Your task to perform on an android device: Open calendar and show me the fourth week of next month Image 0: 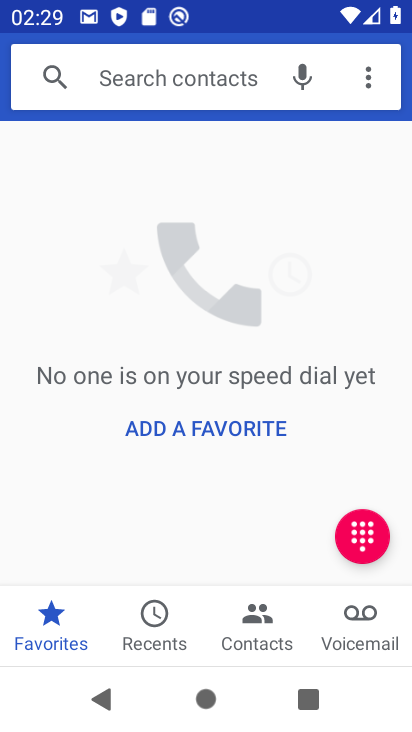
Step 0: press home button
Your task to perform on an android device: Open calendar and show me the fourth week of next month Image 1: 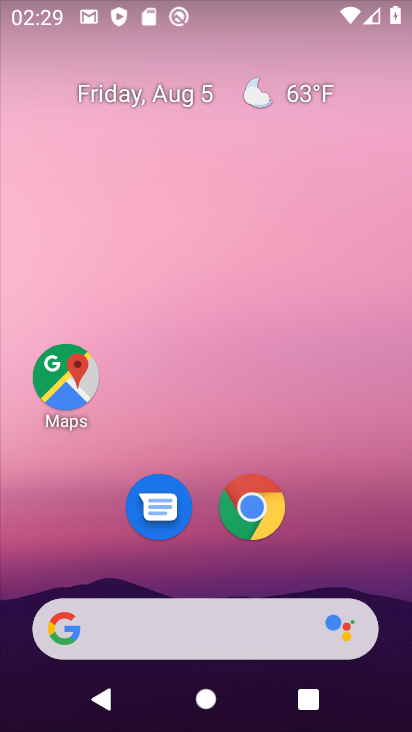
Step 1: drag from (199, 558) to (240, 43)
Your task to perform on an android device: Open calendar and show me the fourth week of next month Image 2: 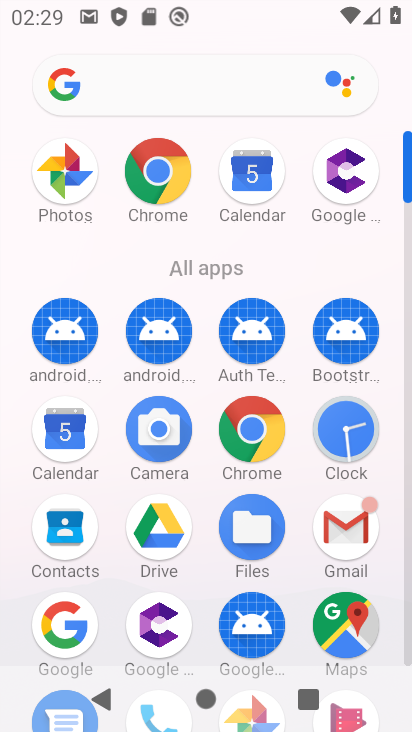
Step 2: click (63, 439)
Your task to perform on an android device: Open calendar and show me the fourth week of next month Image 3: 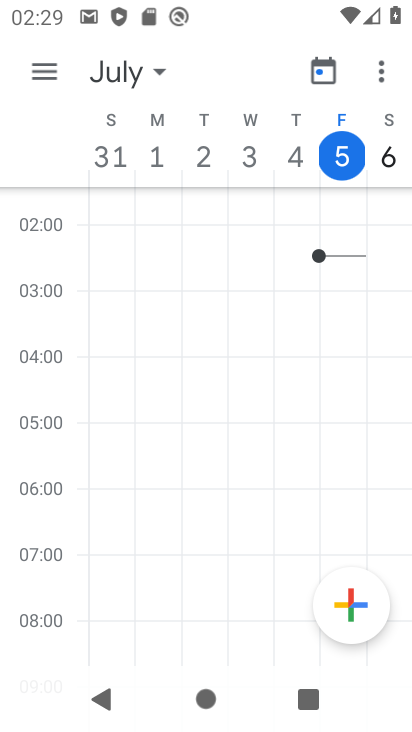
Step 3: click (42, 67)
Your task to perform on an android device: Open calendar and show me the fourth week of next month Image 4: 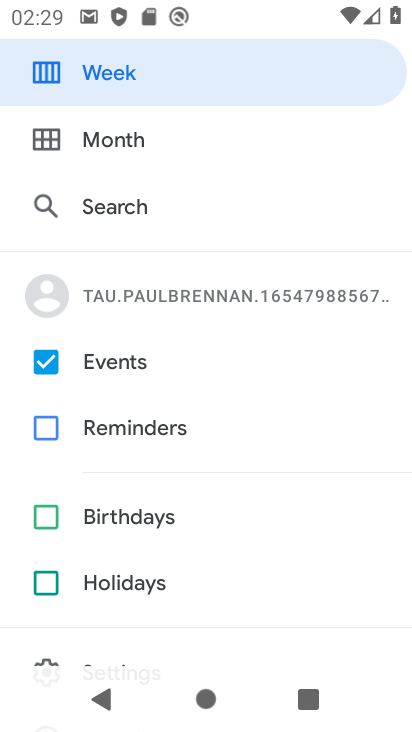
Step 4: click (152, 67)
Your task to perform on an android device: Open calendar and show me the fourth week of next month Image 5: 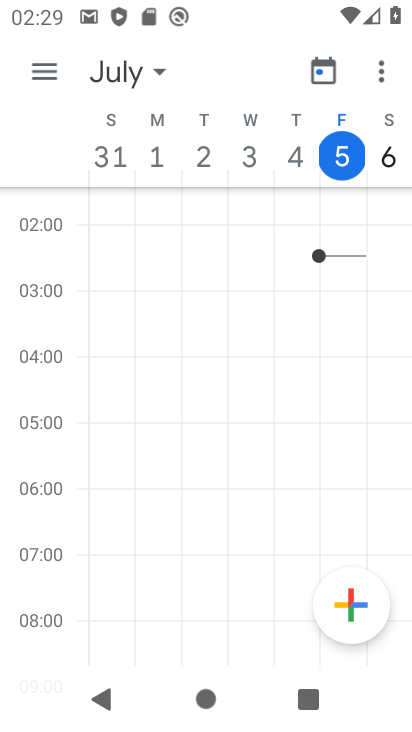
Step 5: drag from (323, 144) to (93, 128)
Your task to perform on an android device: Open calendar and show me the fourth week of next month Image 6: 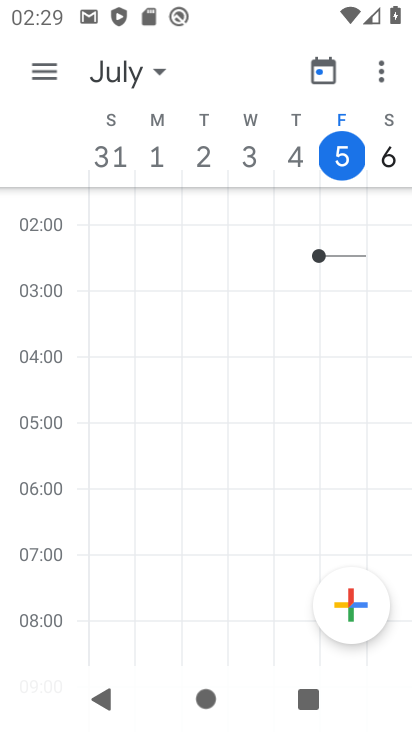
Step 6: click (151, 71)
Your task to perform on an android device: Open calendar and show me the fourth week of next month Image 7: 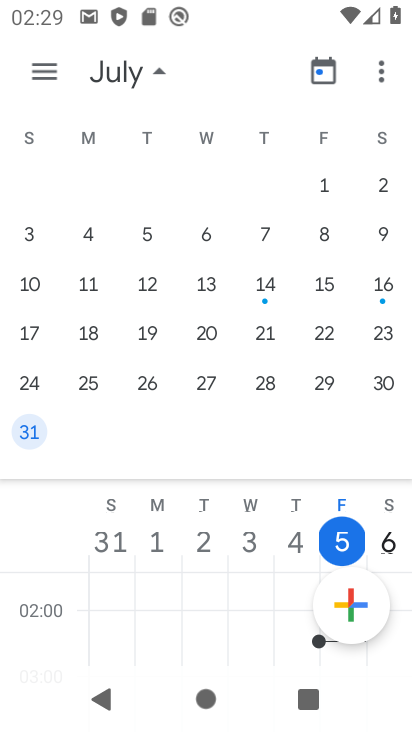
Step 7: drag from (361, 302) to (108, 294)
Your task to perform on an android device: Open calendar and show me the fourth week of next month Image 8: 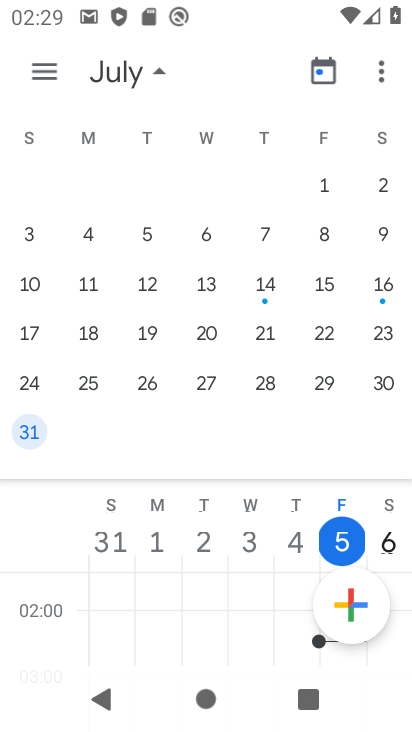
Step 8: drag from (383, 282) to (33, 254)
Your task to perform on an android device: Open calendar and show me the fourth week of next month Image 9: 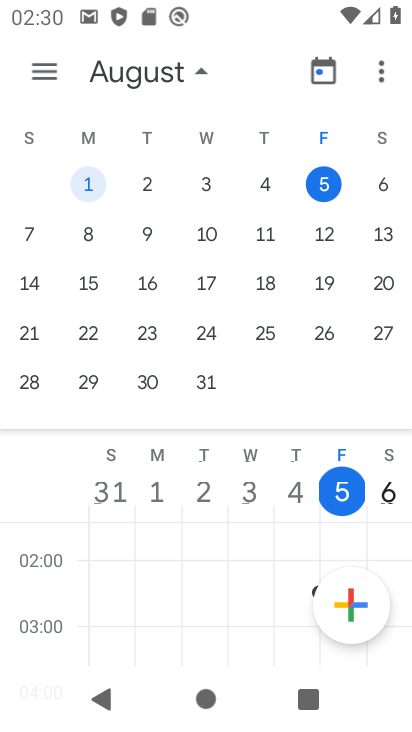
Step 9: drag from (179, 276) to (13, 281)
Your task to perform on an android device: Open calendar and show me the fourth week of next month Image 10: 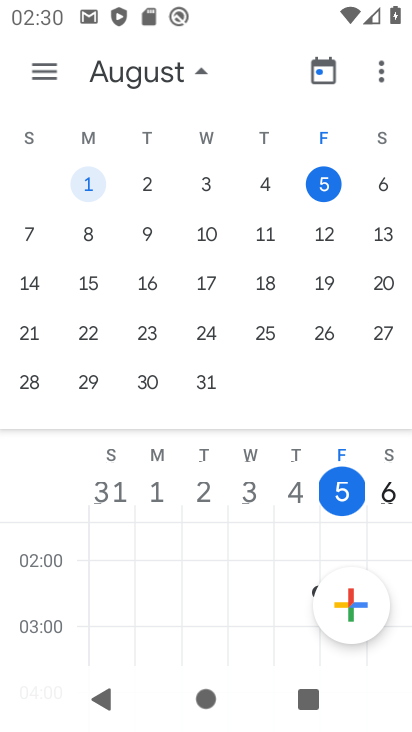
Step 10: drag from (347, 293) to (25, 270)
Your task to perform on an android device: Open calendar and show me the fourth week of next month Image 11: 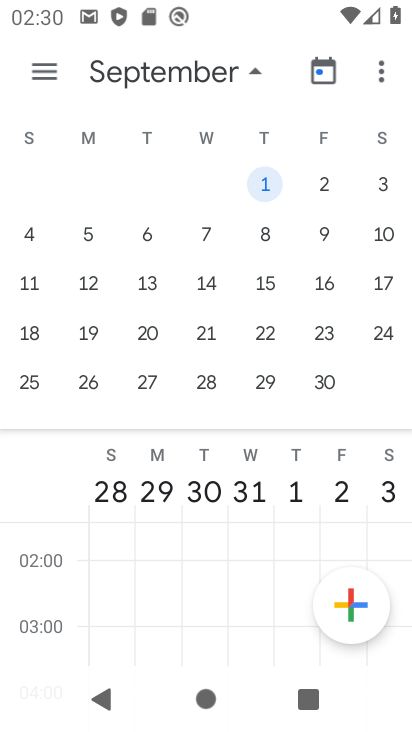
Step 11: click (201, 342)
Your task to perform on an android device: Open calendar and show me the fourth week of next month Image 12: 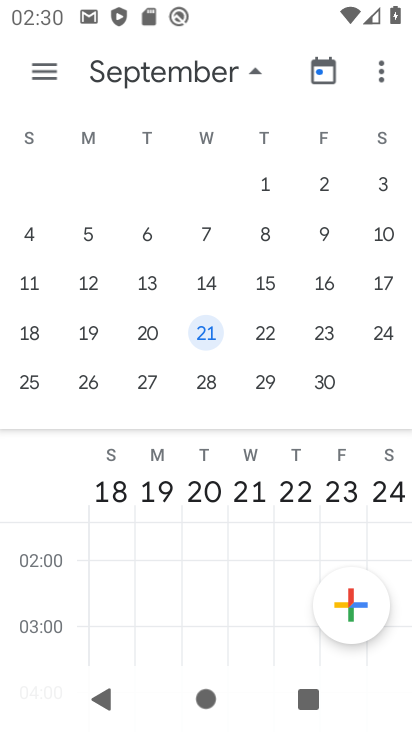
Step 12: task complete